Your task to perform on an android device: stop showing notifications on the lock screen Image 0: 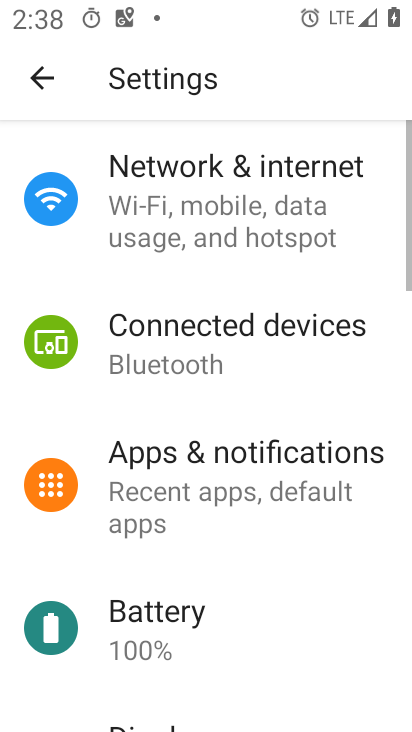
Step 0: press home button
Your task to perform on an android device: stop showing notifications on the lock screen Image 1: 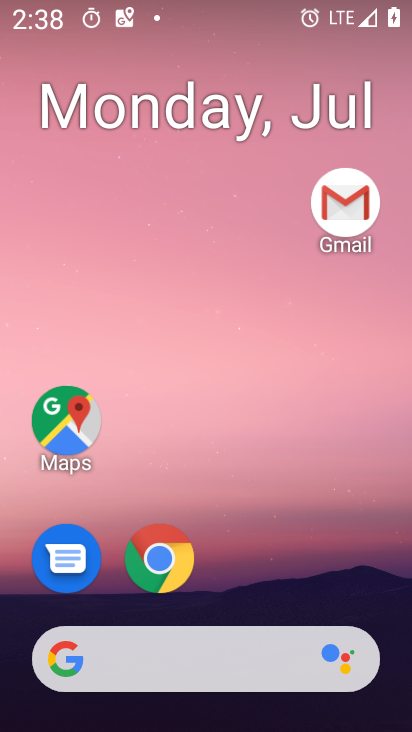
Step 1: drag from (362, 584) to (365, 69)
Your task to perform on an android device: stop showing notifications on the lock screen Image 2: 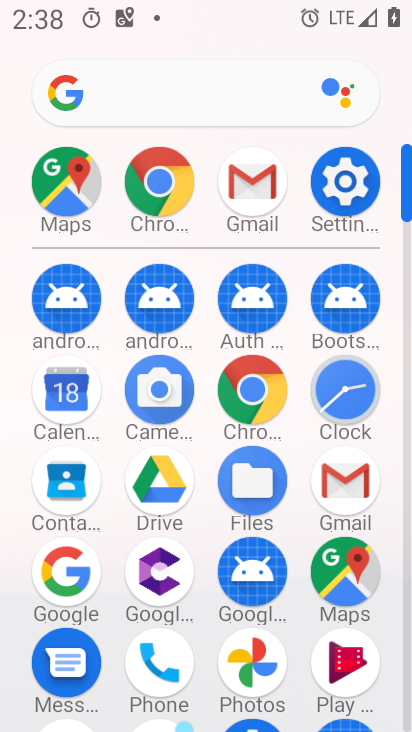
Step 2: click (351, 190)
Your task to perform on an android device: stop showing notifications on the lock screen Image 3: 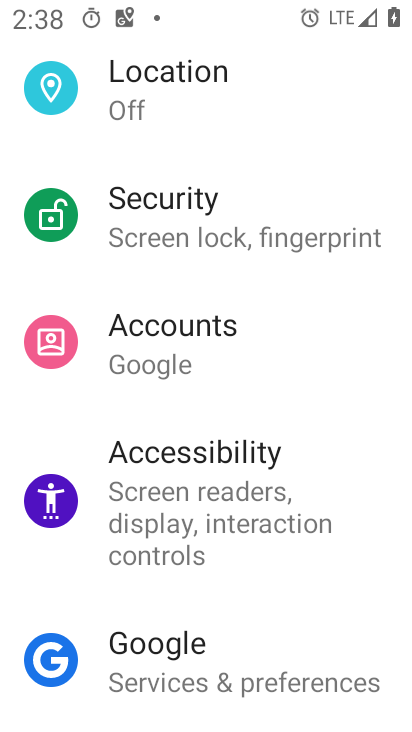
Step 3: drag from (358, 195) to (360, 324)
Your task to perform on an android device: stop showing notifications on the lock screen Image 4: 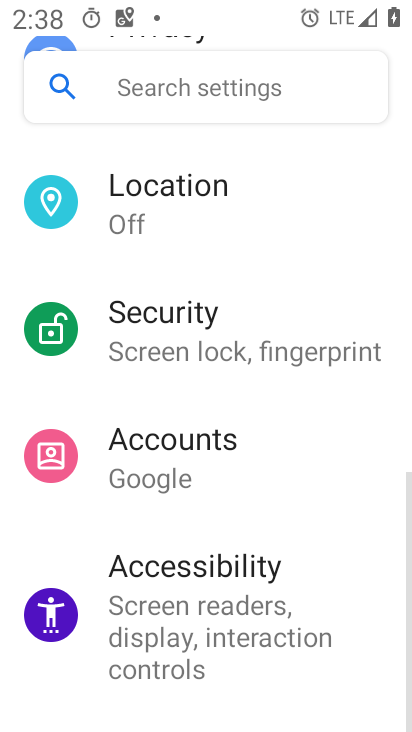
Step 4: drag from (359, 221) to (359, 347)
Your task to perform on an android device: stop showing notifications on the lock screen Image 5: 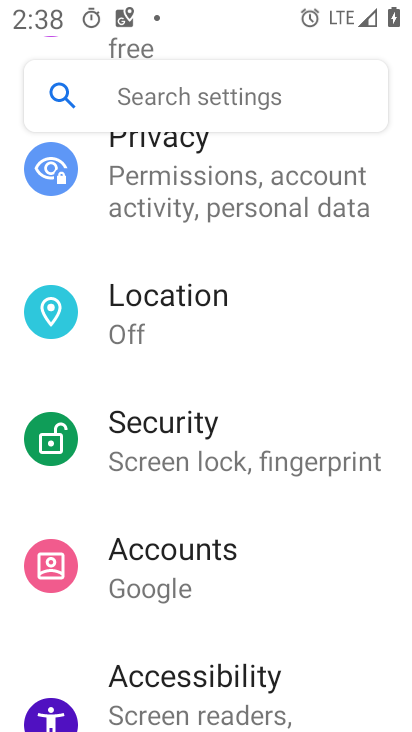
Step 5: drag from (359, 281) to (359, 397)
Your task to perform on an android device: stop showing notifications on the lock screen Image 6: 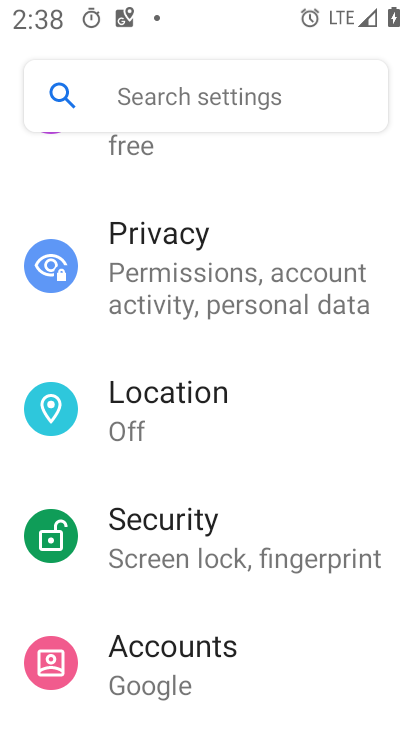
Step 6: drag from (359, 213) to (368, 348)
Your task to perform on an android device: stop showing notifications on the lock screen Image 7: 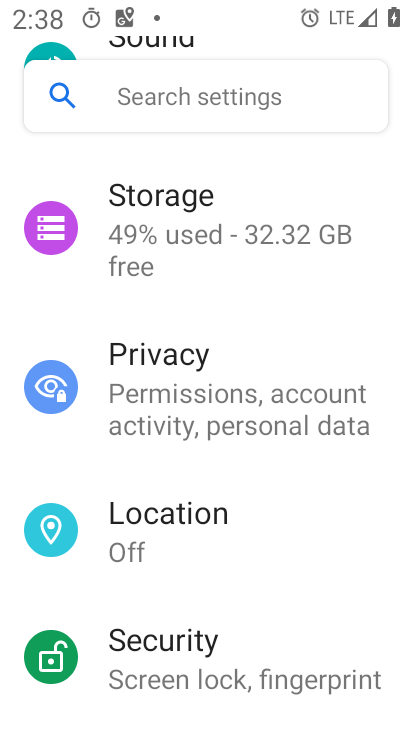
Step 7: drag from (376, 183) to (375, 330)
Your task to perform on an android device: stop showing notifications on the lock screen Image 8: 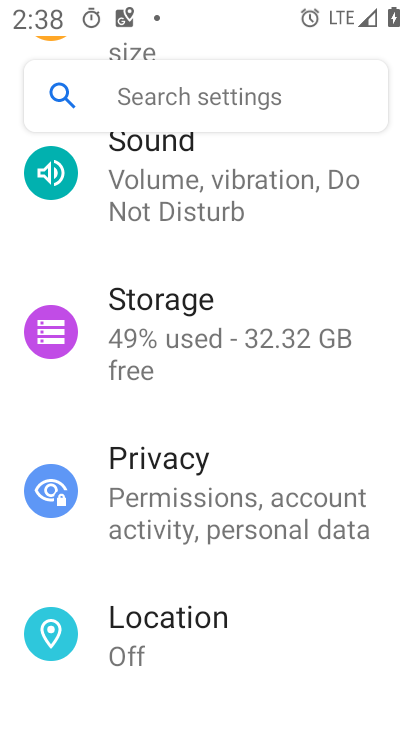
Step 8: drag from (375, 195) to (376, 317)
Your task to perform on an android device: stop showing notifications on the lock screen Image 9: 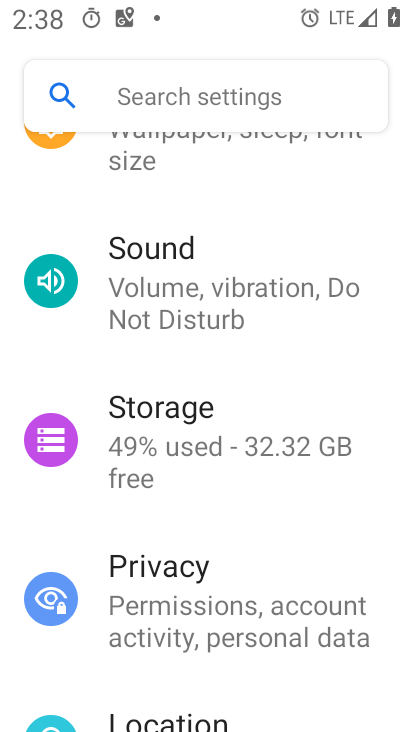
Step 9: drag from (371, 196) to (379, 326)
Your task to perform on an android device: stop showing notifications on the lock screen Image 10: 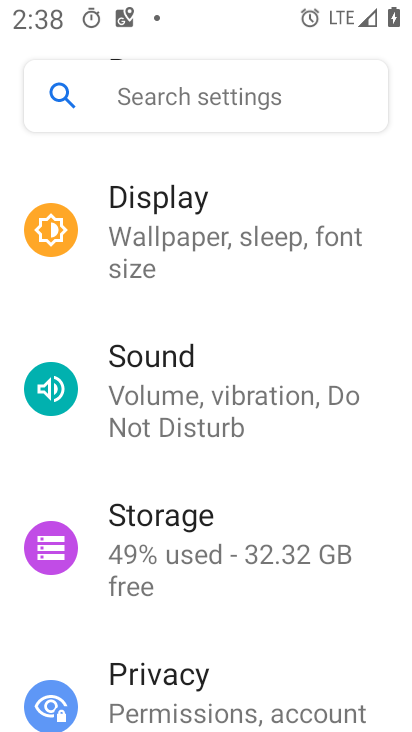
Step 10: drag from (369, 180) to (374, 316)
Your task to perform on an android device: stop showing notifications on the lock screen Image 11: 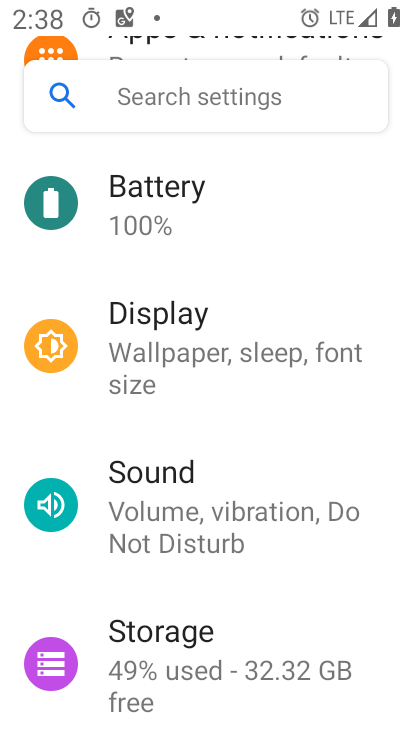
Step 11: drag from (369, 176) to (368, 312)
Your task to perform on an android device: stop showing notifications on the lock screen Image 12: 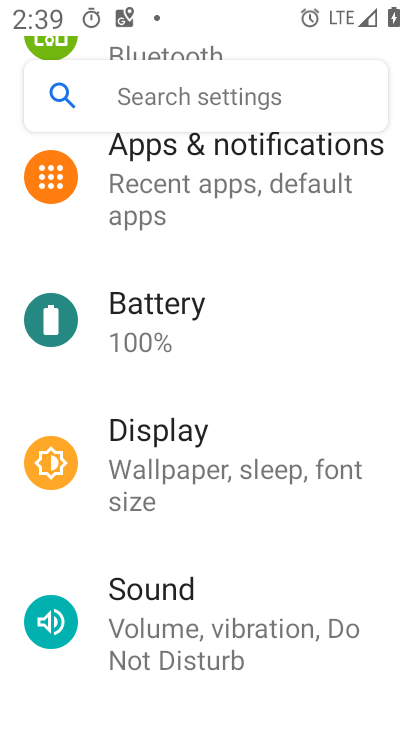
Step 12: drag from (356, 232) to (356, 391)
Your task to perform on an android device: stop showing notifications on the lock screen Image 13: 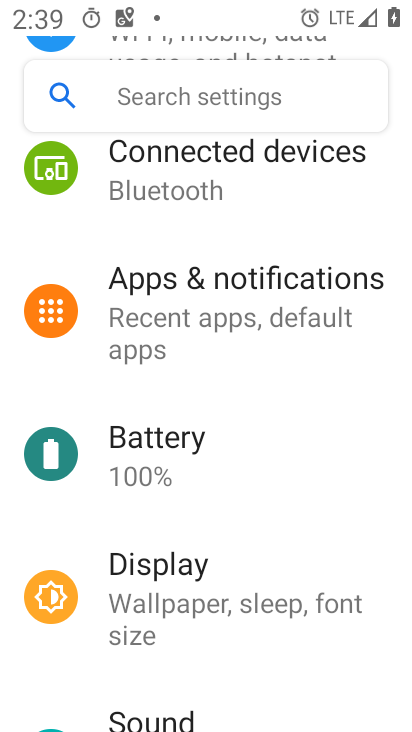
Step 13: click (277, 302)
Your task to perform on an android device: stop showing notifications on the lock screen Image 14: 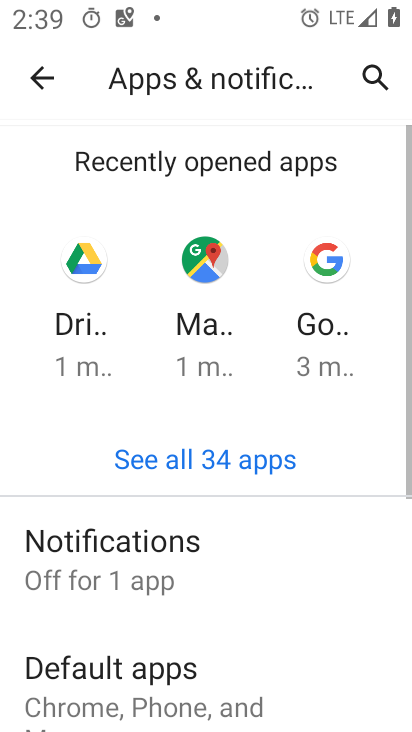
Step 14: drag from (304, 431) to (317, 324)
Your task to perform on an android device: stop showing notifications on the lock screen Image 15: 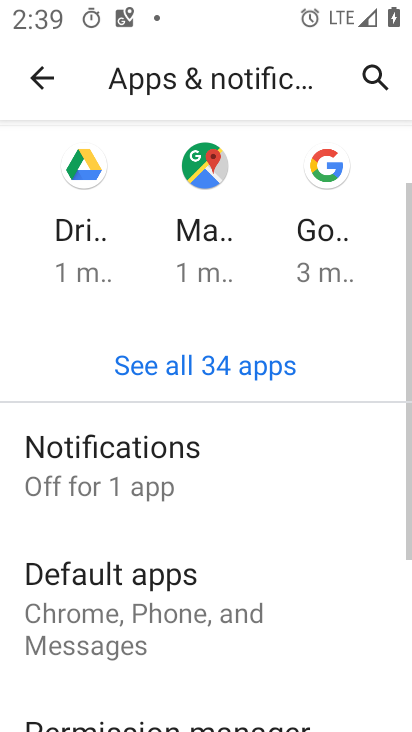
Step 15: drag from (346, 452) to (353, 342)
Your task to perform on an android device: stop showing notifications on the lock screen Image 16: 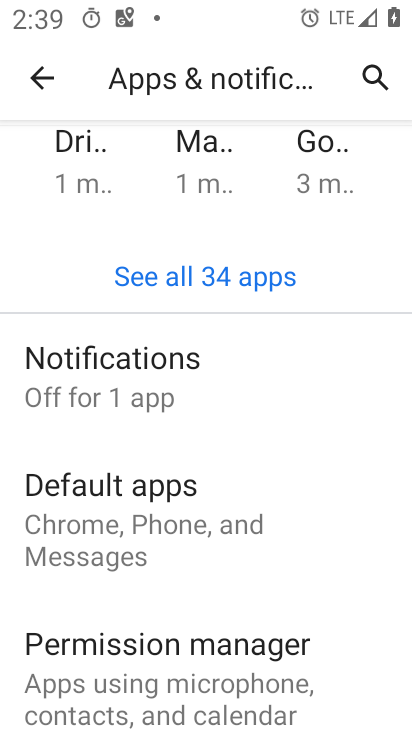
Step 16: drag from (351, 456) to (349, 331)
Your task to perform on an android device: stop showing notifications on the lock screen Image 17: 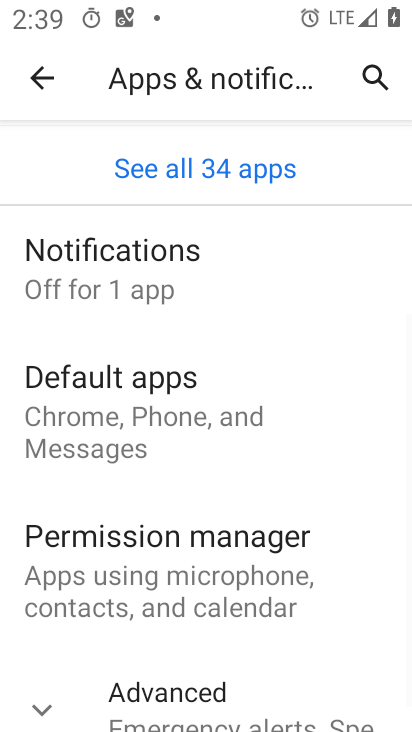
Step 17: click (197, 269)
Your task to perform on an android device: stop showing notifications on the lock screen Image 18: 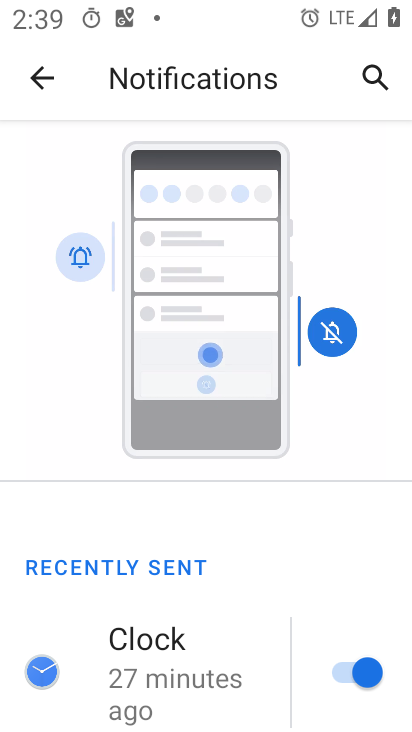
Step 18: drag from (309, 471) to (321, 359)
Your task to perform on an android device: stop showing notifications on the lock screen Image 19: 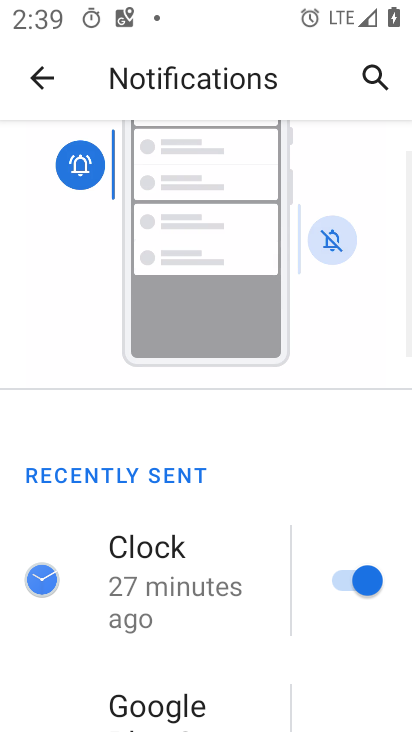
Step 19: drag from (317, 445) to (324, 345)
Your task to perform on an android device: stop showing notifications on the lock screen Image 20: 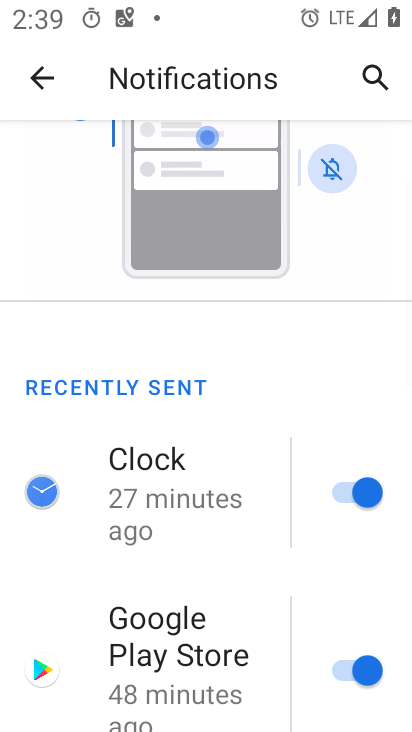
Step 20: drag from (324, 452) to (323, 325)
Your task to perform on an android device: stop showing notifications on the lock screen Image 21: 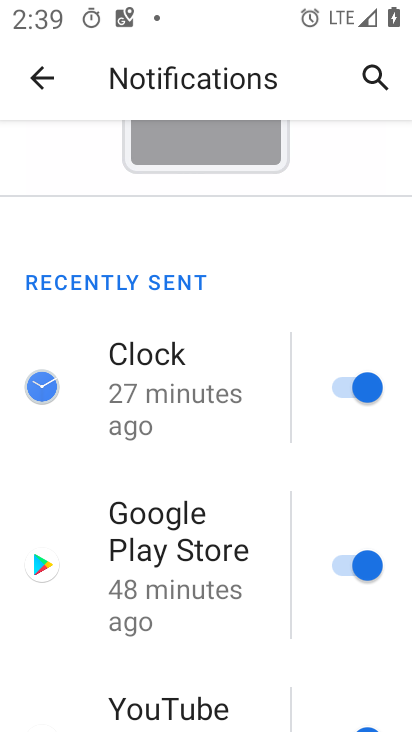
Step 21: drag from (266, 474) to (269, 342)
Your task to perform on an android device: stop showing notifications on the lock screen Image 22: 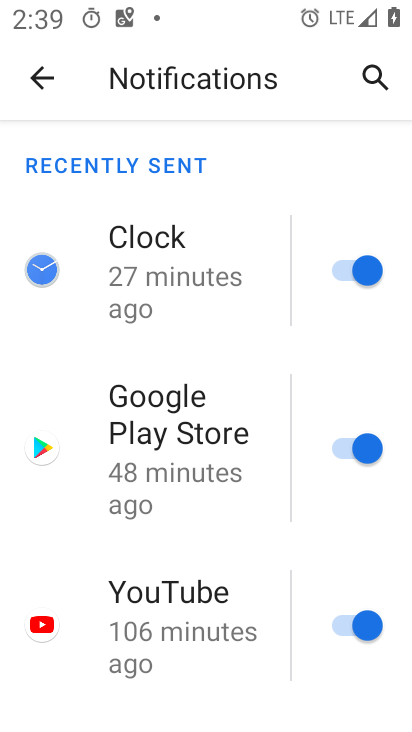
Step 22: drag from (275, 504) to (264, 365)
Your task to perform on an android device: stop showing notifications on the lock screen Image 23: 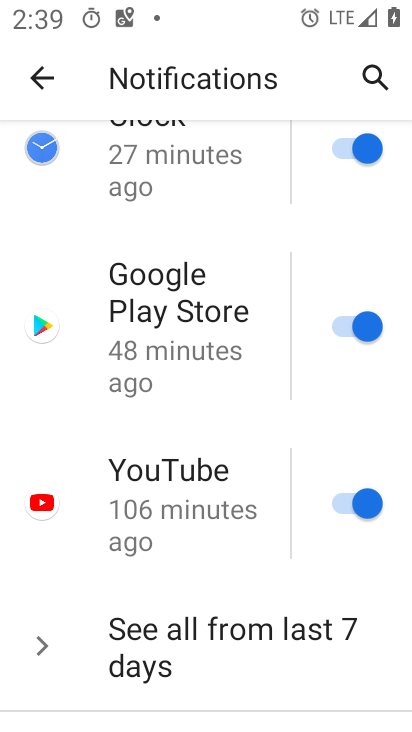
Step 23: drag from (276, 553) to (259, 404)
Your task to perform on an android device: stop showing notifications on the lock screen Image 24: 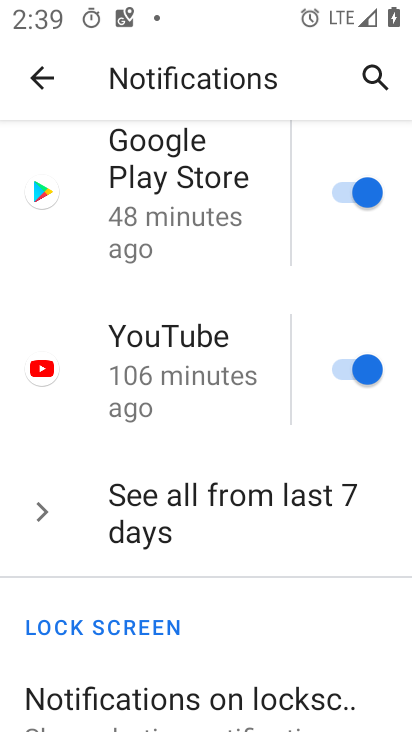
Step 24: drag from (260, 542) to (260, 382)
Your task to perform on an android device: stop showing notifications on the lock screen Image 25: 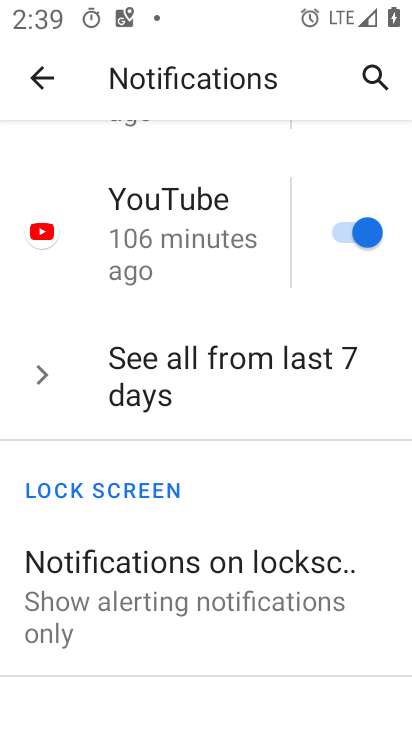
Step 25: click (288, 565)
Your task to perform on an android device: stop showing notifications on the lock screen Image 26: 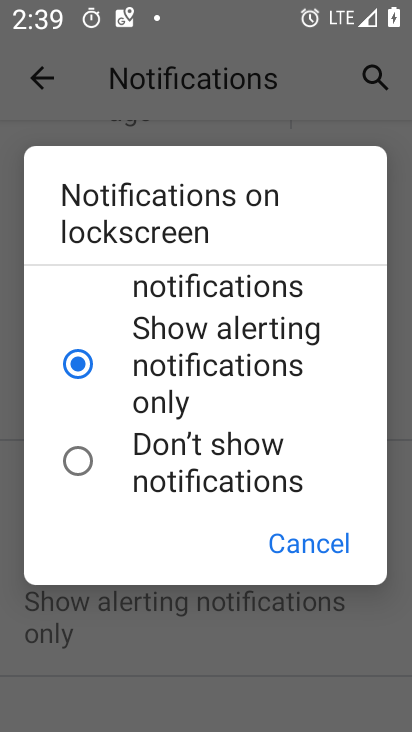
Step 26: click (172, 478)
Your task to perform on an android device: stop showing notifications on the lock screen Image 27: 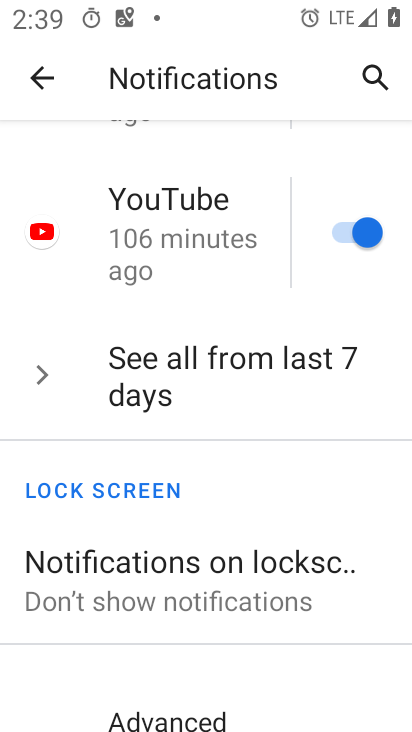
Step 27: task complete